Your task to perform on an android device: What's the weather today? Image 0: 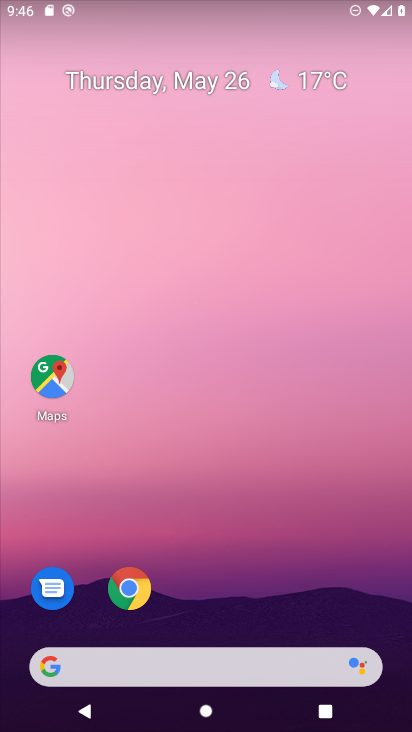
Step 0: click (314, 73)
Your task to perform on an android device: What's the weather today? Image 1: 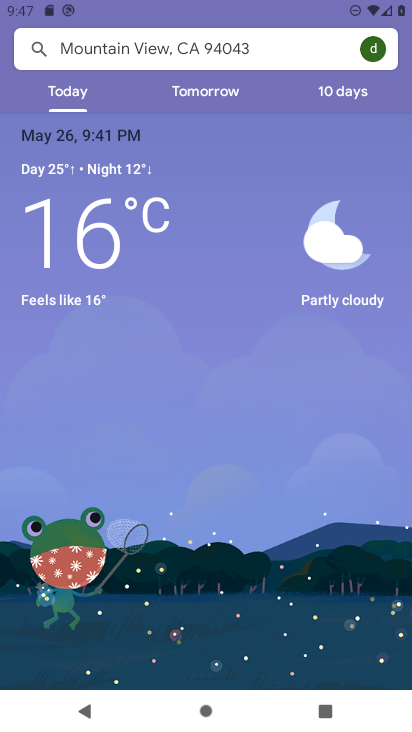
Step 1: task complete